Your task to perform on an android device: toggle translation in the chrome app Image 0: 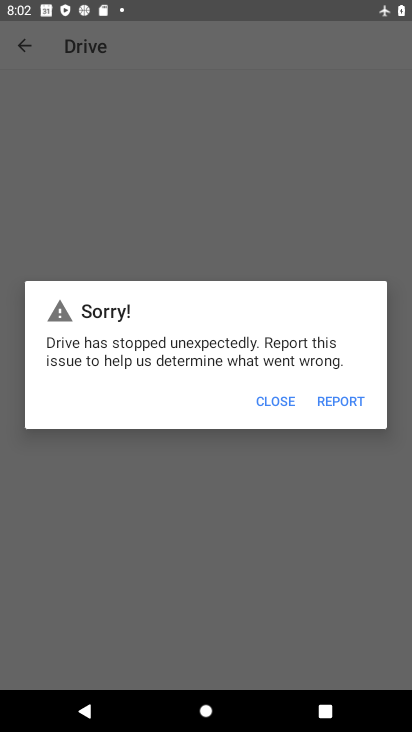
Step 0: press home button
Your task to perform on an android device: toggle translation in the chrome app Image 1: 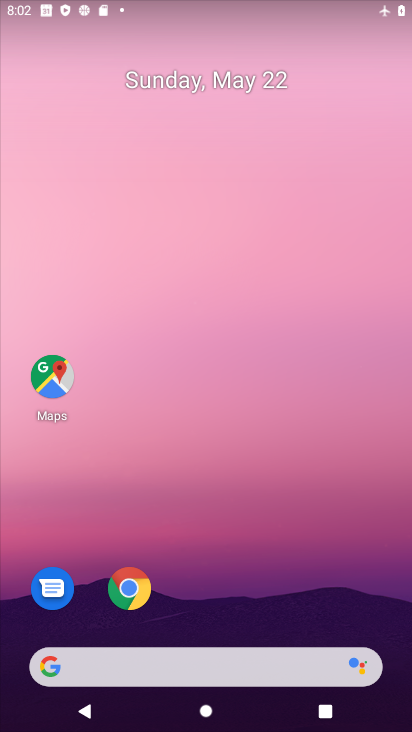
Step 1: click (136, 591)
Your task to perform on an android device: toggle translation in the chrome app Image 2: 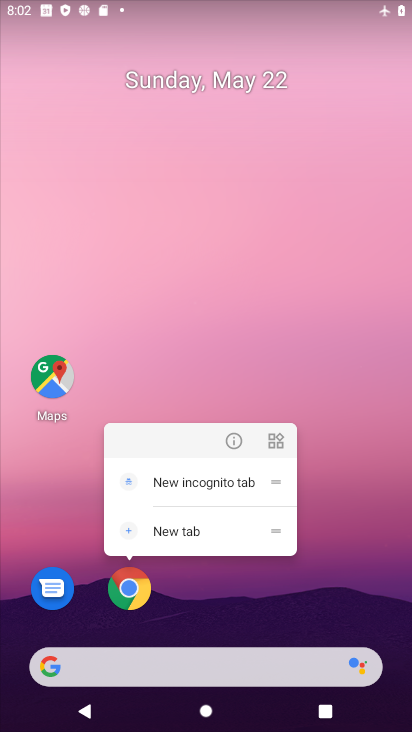
Step 2: click (127, 585)
Your task to perform on an android device: toggle translation in the chrome app Image 3: 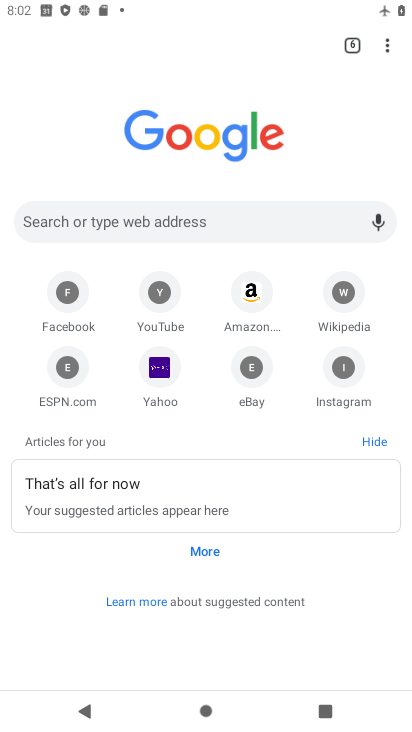
Step 3: click (386, 46)
Your task to perform on an android device: toggle translation in the chrome app Image 4: 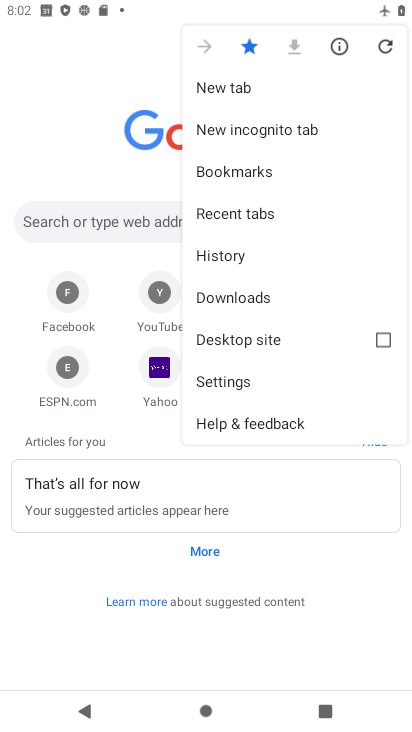
Step 4: click (219, 378)
Your task to perform on an android device: toggle translation in the chrome app Image 5: 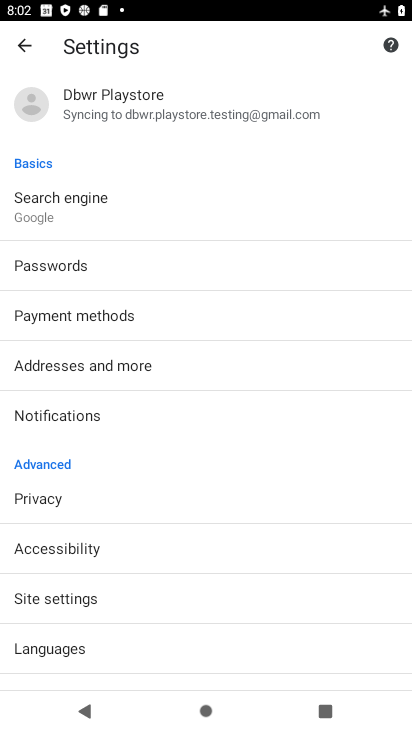
Step 5: click (55, 656)
Your task to perform on an android device: toggle translation in the chrome app Image 6: 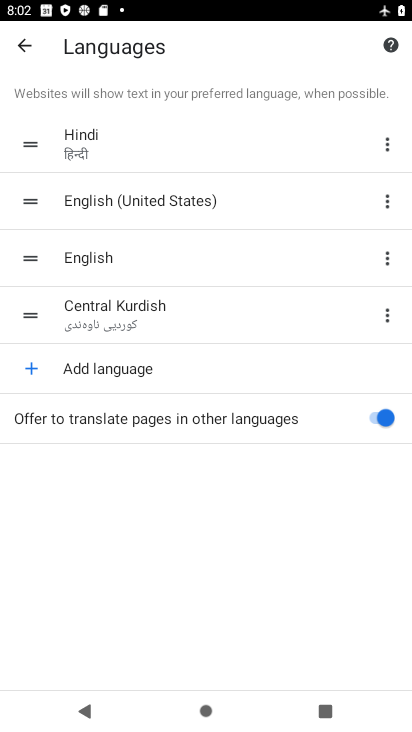
Step 6: click (371, 411)
Your task to perform on an android device: toggle translation in the chrome app Image 7: 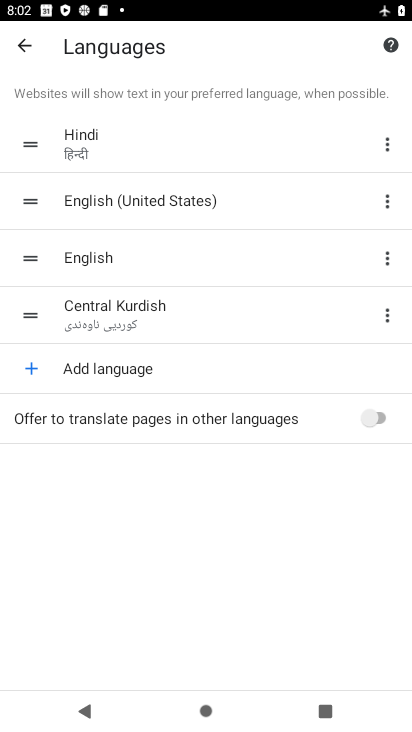
Step 7: task complete